Your task to perform on an android device: choose inbox layout in the gmail app Image 0: 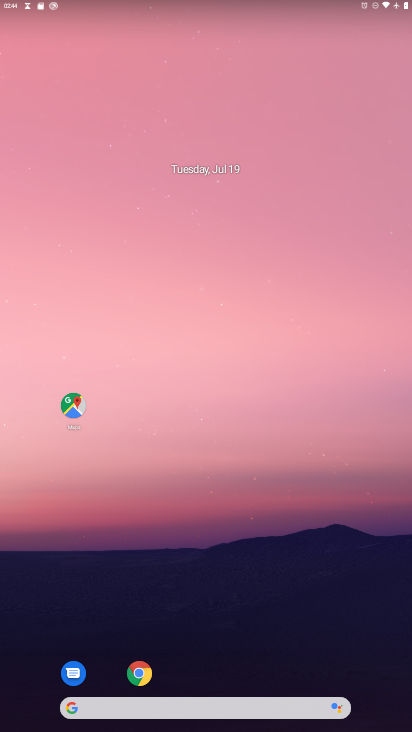
Step 0: drag from (211, 619) to (213, 423)
Your task to perform on an android device: choose inbox layout in the gmail app Image 1: 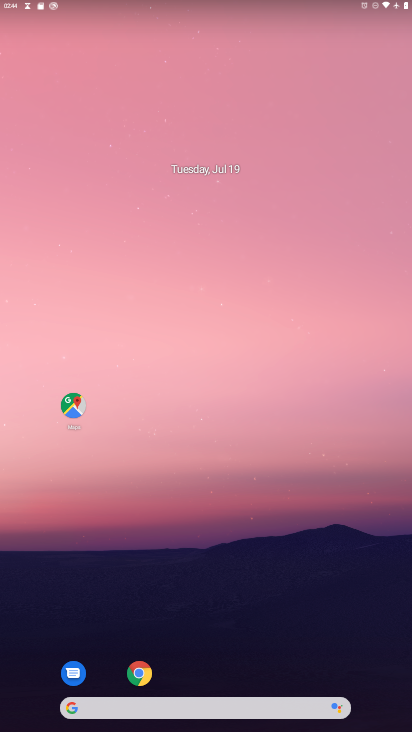
Step 1: drag from (185, 630) to (196, 232)
Your task to perform on an android device: choose inbox layout in the gmail app Image 2: 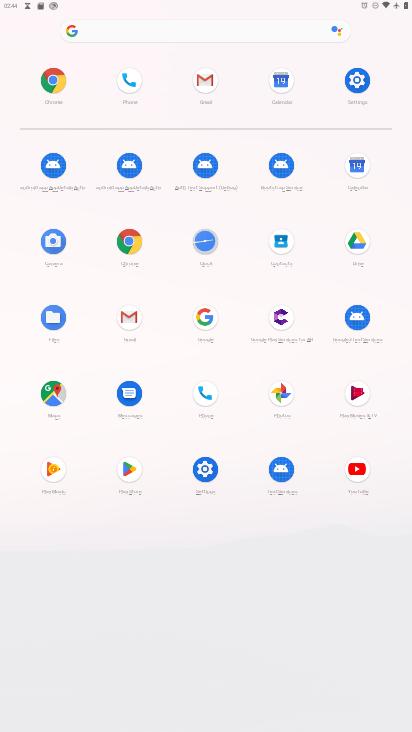
Step 2: click (130, 310)
Your task to perform on an android device: choose inbox layout in the gmail app Image 3: 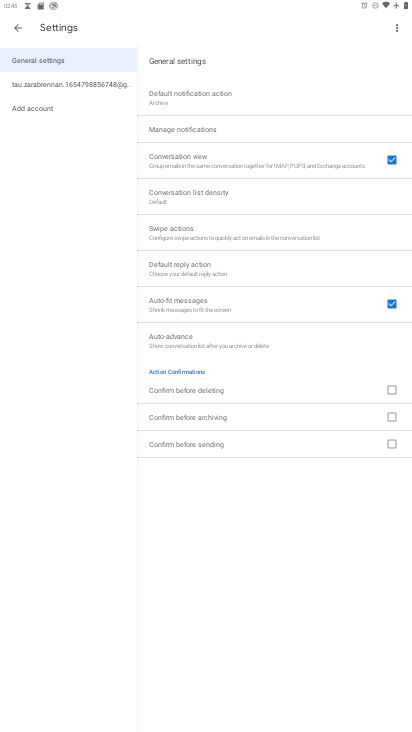
Step 3: click (59, 87)
Your task to perform on an android device: choose inbox layout in the gmail app Image 4: 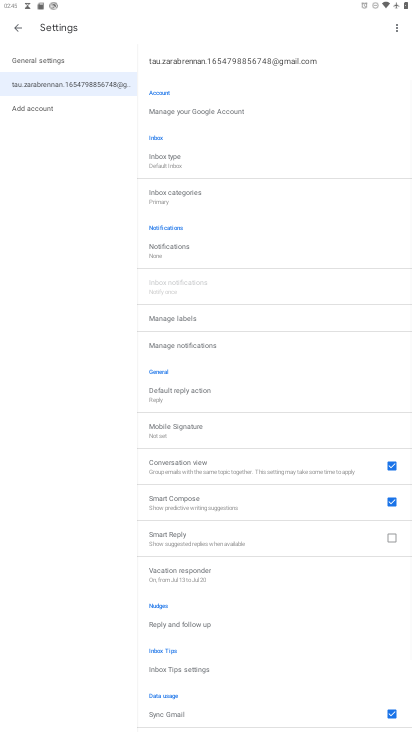
Step 4: click (191, 152)
Your task to perform on an android device: choose inbox layout in the gmail app Image 5: 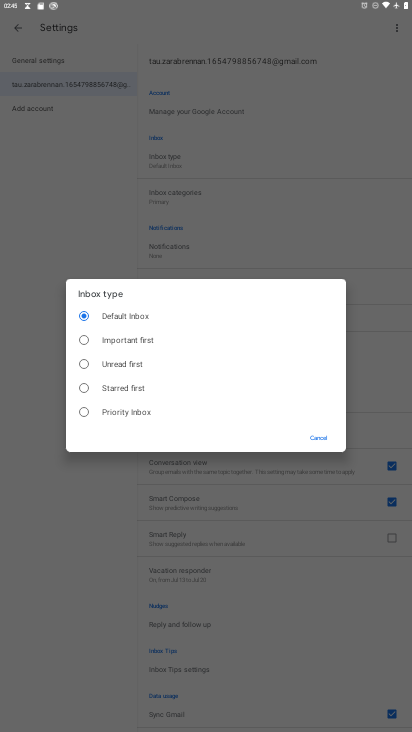
Step 5: click (86, 382)
Your task to perform on an android device: choose inbox layout in the gmail app Image 6: 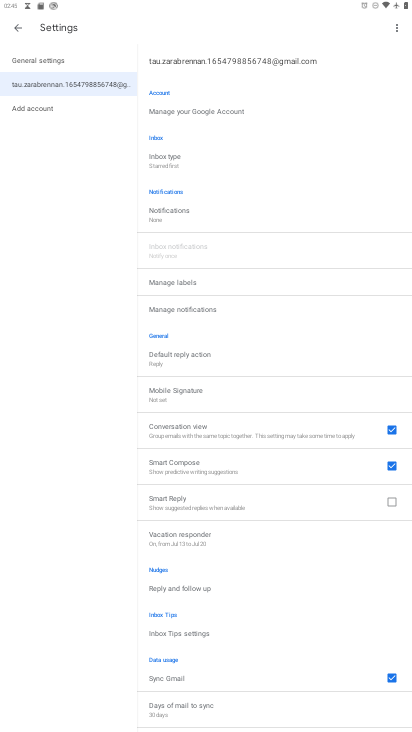
Step 6: task complete